Your task to perform on an android device: Open sound settings Image 0: 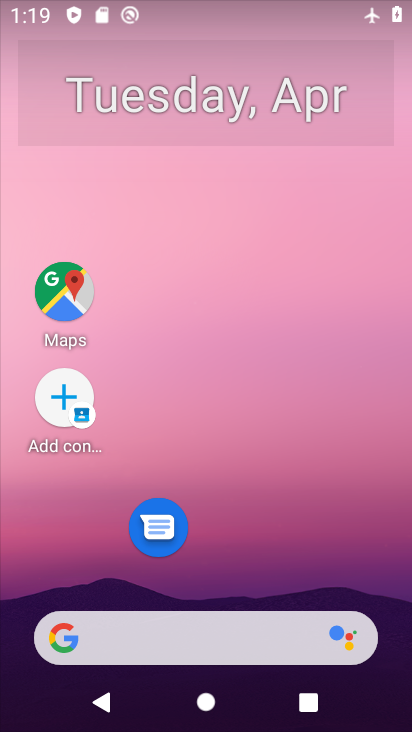
Step 0: drag from (243, 583) to (269, 67)
Your task to perform on an android device: Open sound settings Image 1: 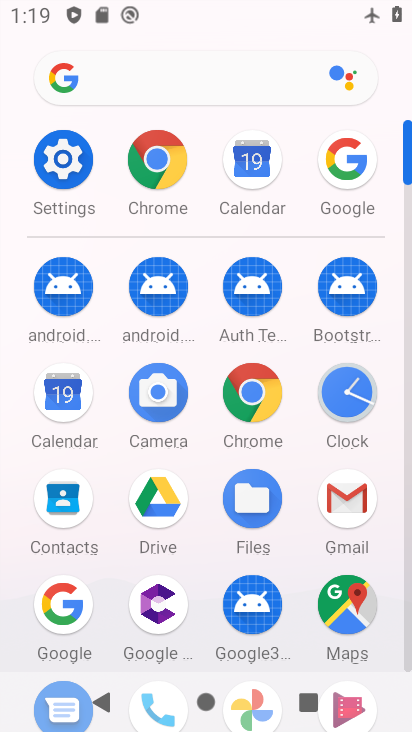
Step 1: click (61, 161)
Your task to perform on an android device: Open sound settings Image 2: 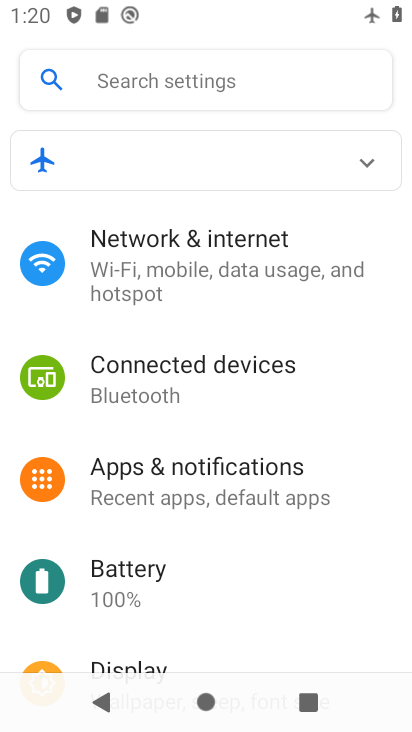
Step 2: drag from (160, 508) to (197, 419)
Your task to perform on an android device: Open sound settings Image 3: 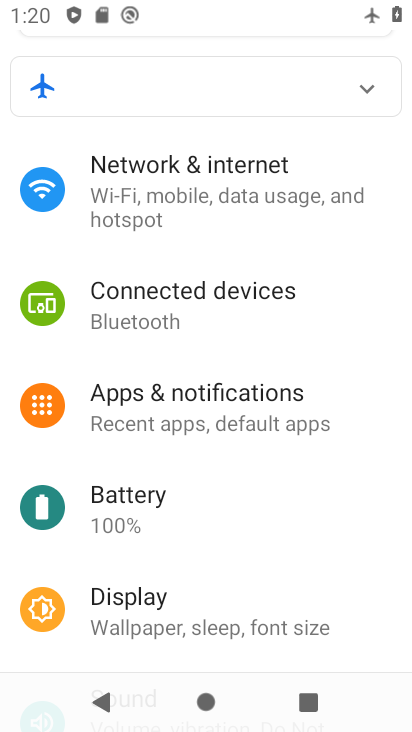
Step 3: drag from (225, 525) to (229, 436)
Your task to perform on an android device: Open sound settings Image 4: 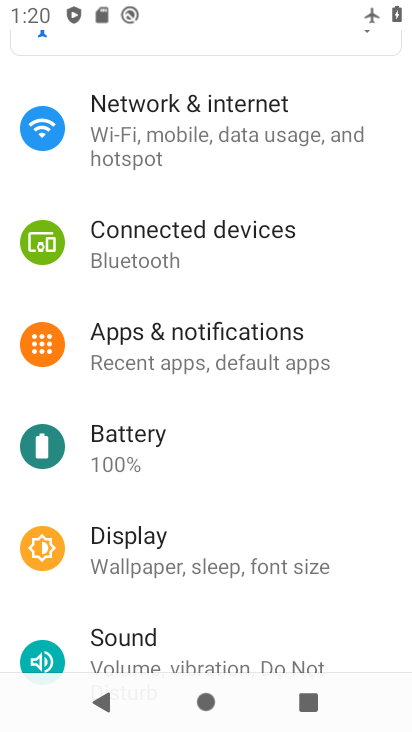
Step 4: drag from (221, 570) to (242, 459)
Your task to perform on an android device: Open sound settings Image 5: 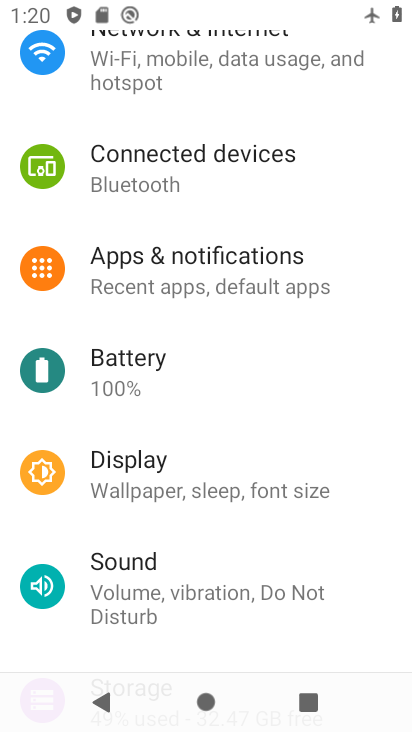
Step 5: click (144, 563)
Your task to perform on an android device: Open sound settings Image 6: 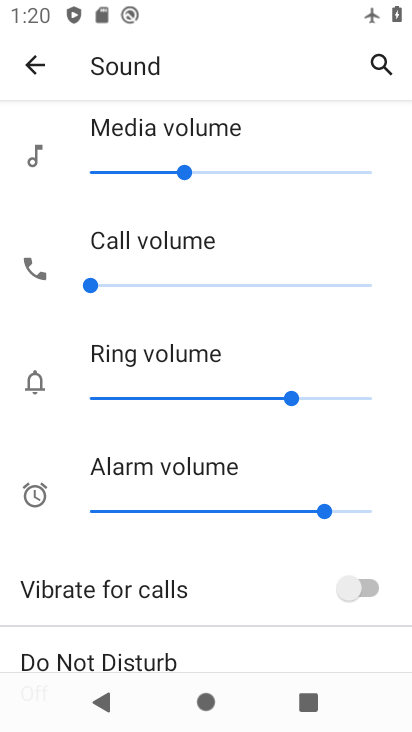
Step 6: task complete